Your task to perform on an android device: Open the stopwatch Image 0: 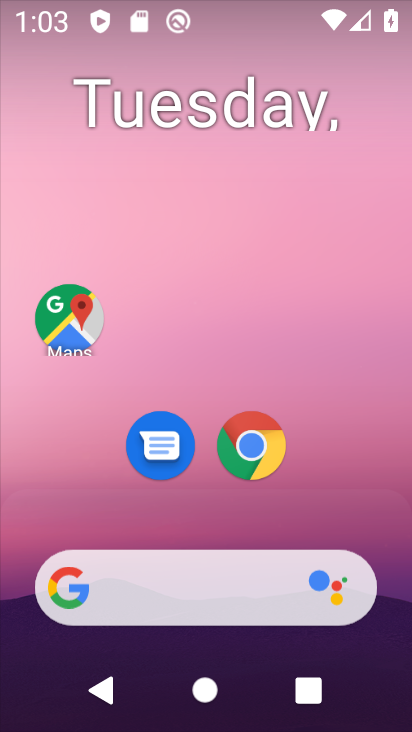
Step 0: drag from (197, 528) to (201, 155)
Your task to perform on an android device: Open the stopwatch Image 1: 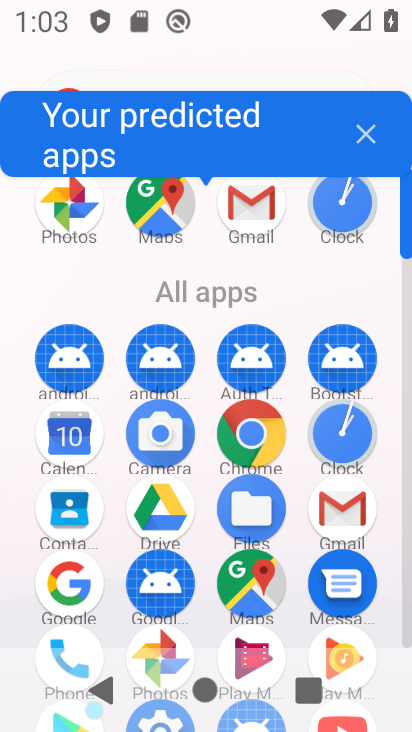
Step 1: click (336, 203)
Your task to perform on an android device: Open the stopwatch Image 2: 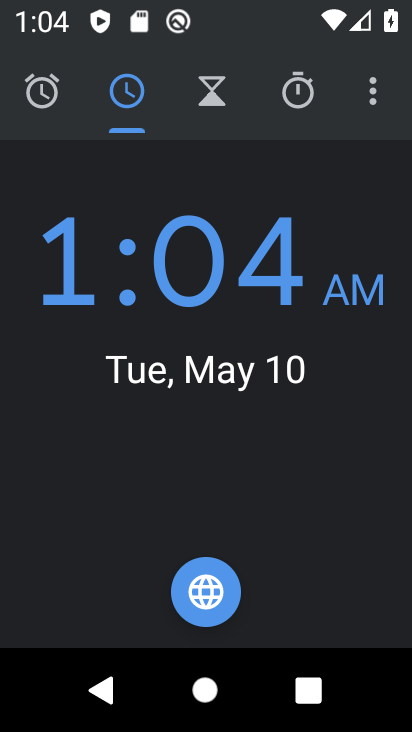
Step 2: click (287, 99)
Your task to perform on an android device: Open the stopwatch Image 3: 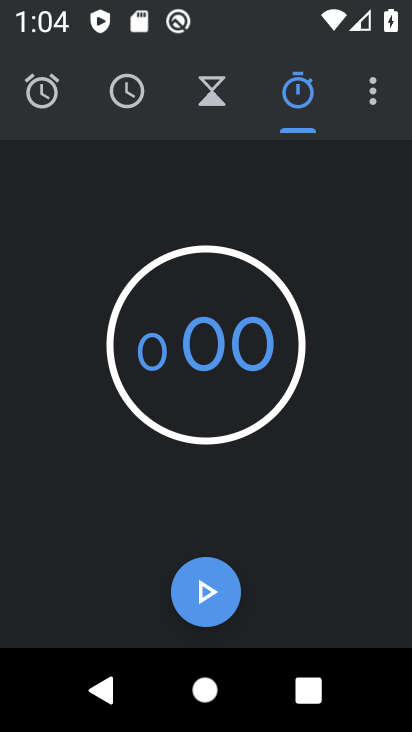
Step 3: task complete